Your task to perform on an android device: Open Maps and search for coffee Image 0: 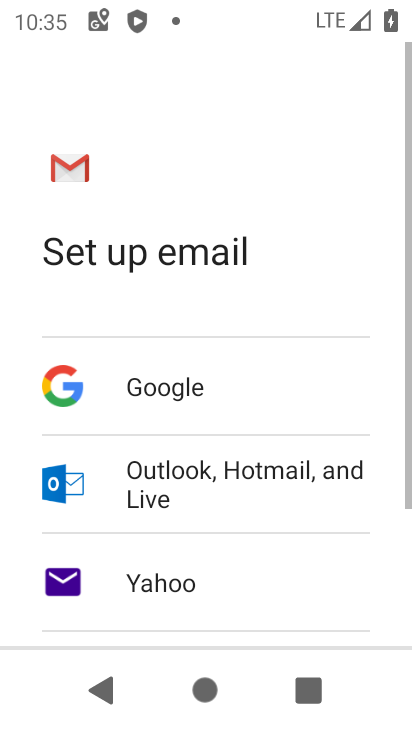
Step 0: press home button
Your task to perform on an android device: Open Maps and search for coffee Image 1: 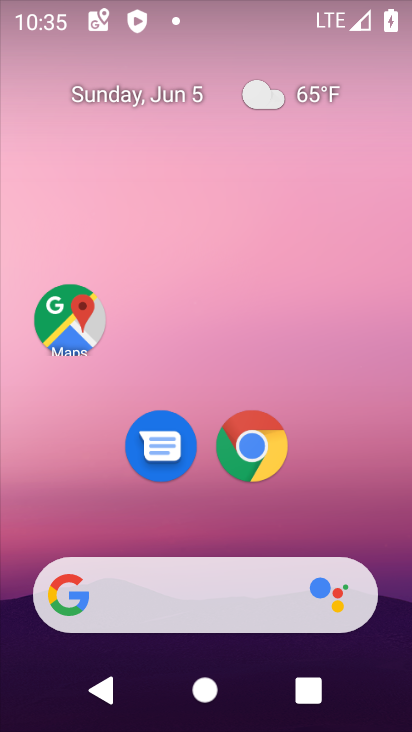
Step 1: drag from (242, 525) to (206, 256)
Your task to perform on an android device: Open Maps and search for coffee Image 2: 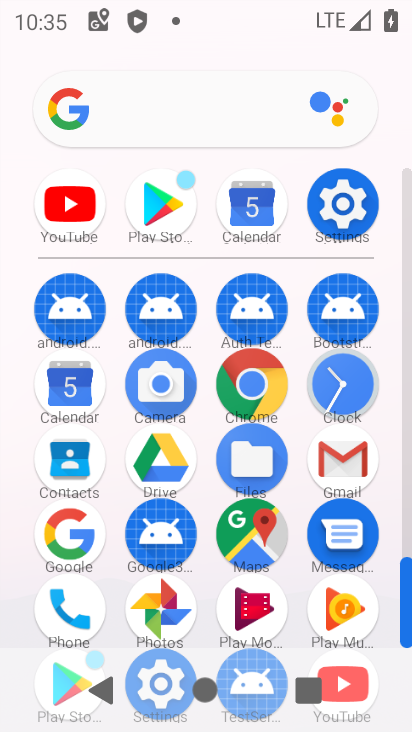
Step 2: click (248, 546)
Your task to perform on an android device: Open Maps and search for coffee Image 3: 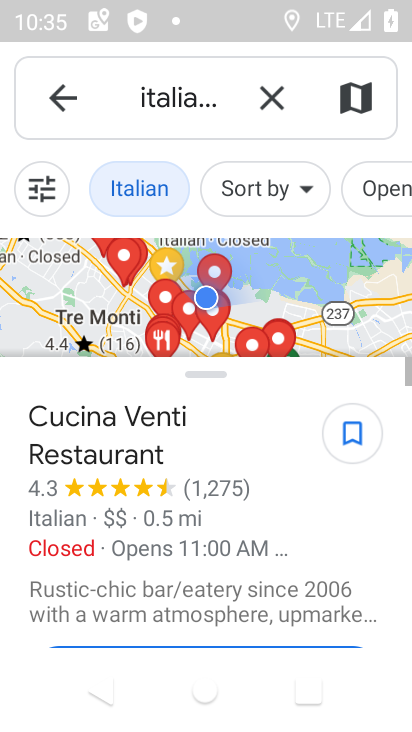
Step 3: click (265, 99)
Your task to perform on an android device: Open Maps and search for coffee Image 4: 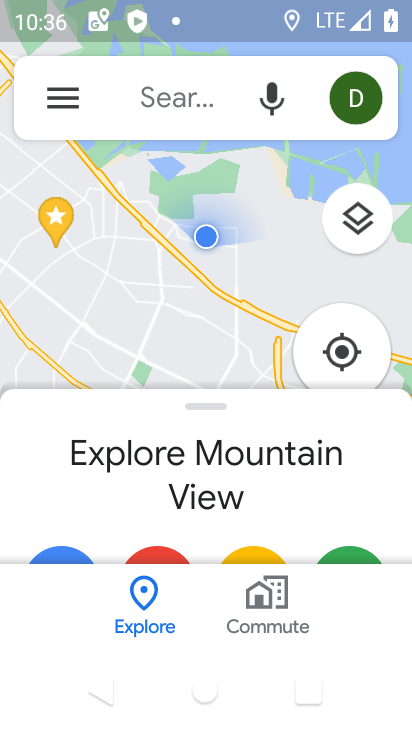
Step 4: click (165, 101)
Your task to perform on an android device: Open Maps and search for coffee Image 5: 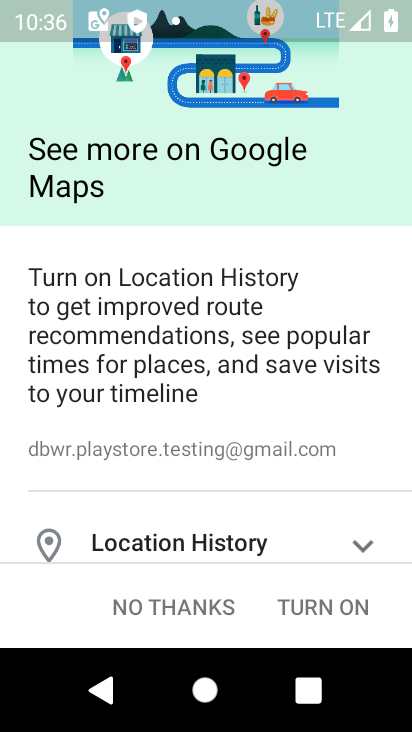
Step 5: click (211, 601)
Your task to perform on an android device: Open Maps and search for coffee Image 6: 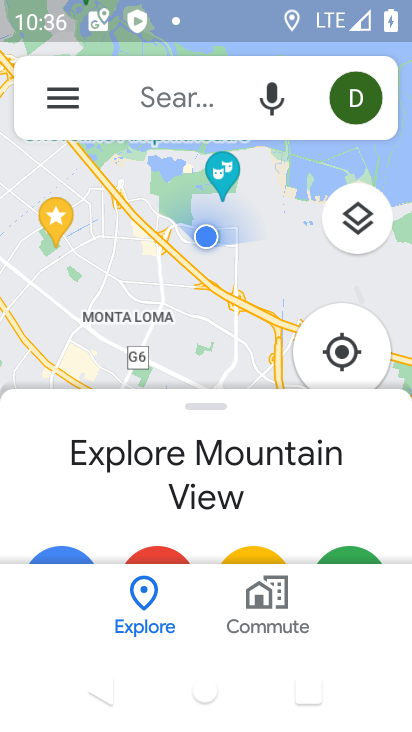
Step 6: click (176, 108)
Your task to perform on an android device: Open Maps and search for coffee Image 7: 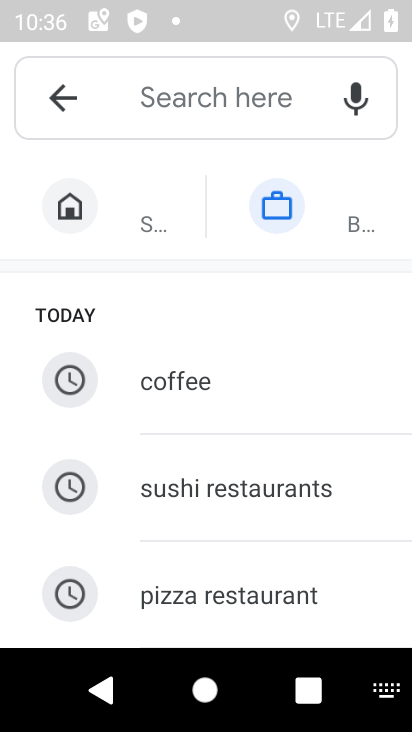
Step 7: click (166, 379)
Your task to perform on an android device: Open Maps and search for coffee Image 8: 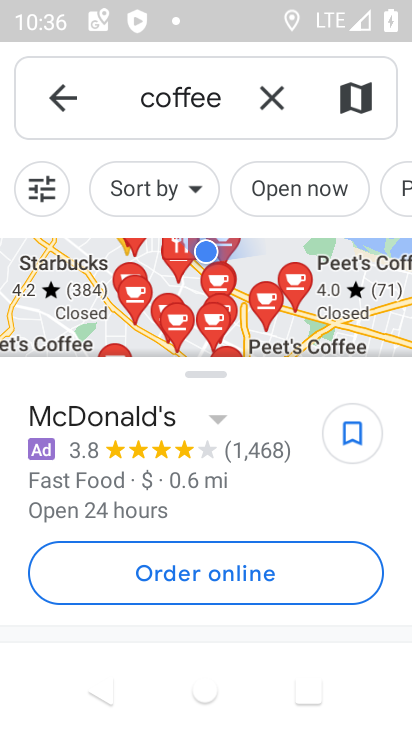
Step 8: task complete